Your task to perform on an android device: Search for seafood restaurants on Google Maps Image 0: 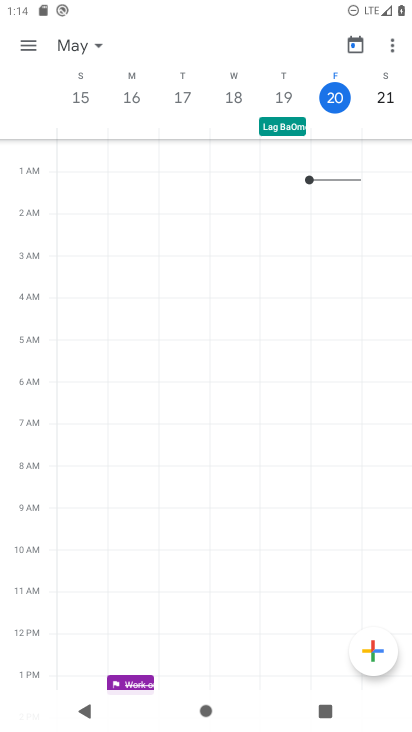
Step 0: press home button
Your task to perform on an android device: Search for seafood restaurants on Google Maps Image 1: 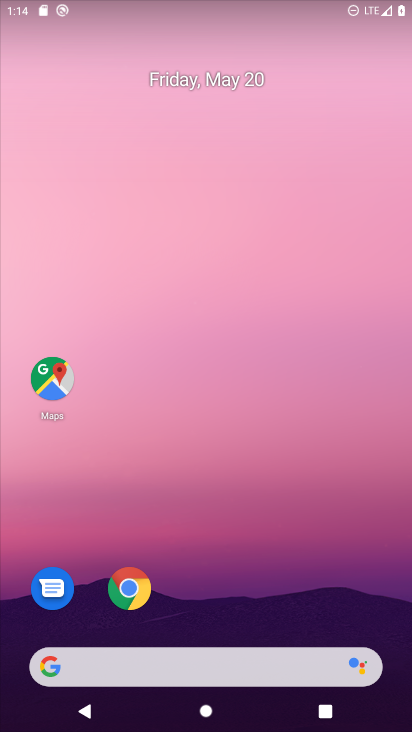
Step 1: click (53, 377)
Your task to perform on an android device: Search for seafood restaurants on Google Maps Image 2: 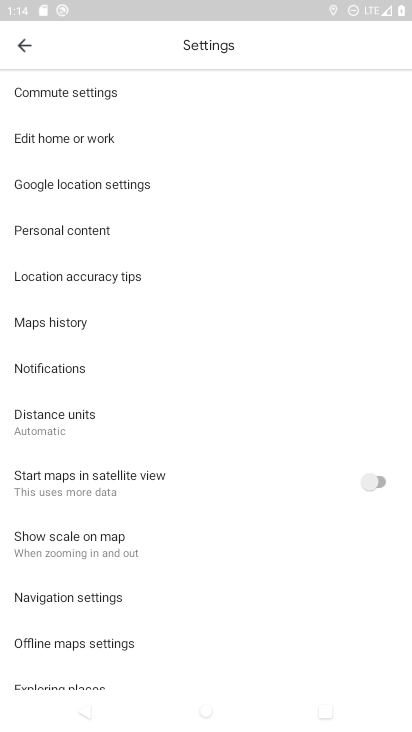
Step 2: press back button
Your task to perform on an android device: Search for seafood restaurants on Google Maps Image 3: 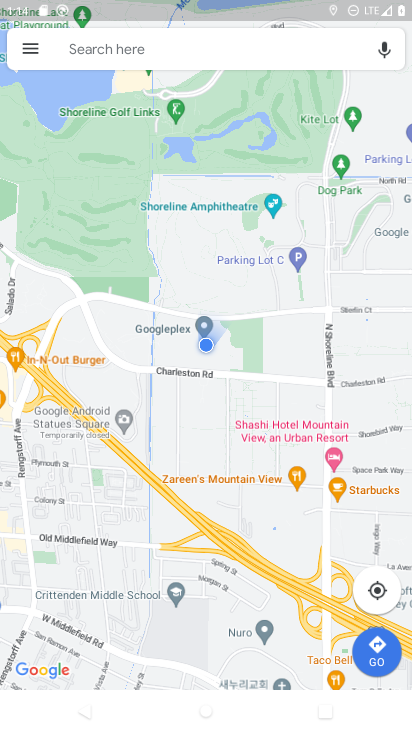
Step 3: click (123, 52)
Your task to perform on an android device: Search for seafood restaurants on Google Maps Image 4: 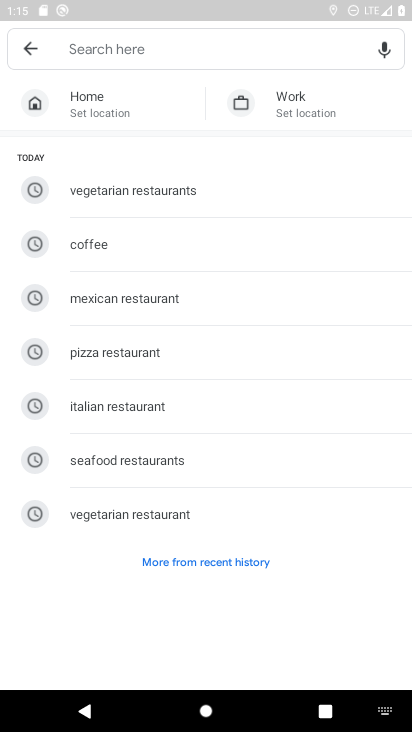
Step 4: type "seafood restaurants"
Your task to perform on an android device: Search for seafood restaurants on Google Maps Image 5: 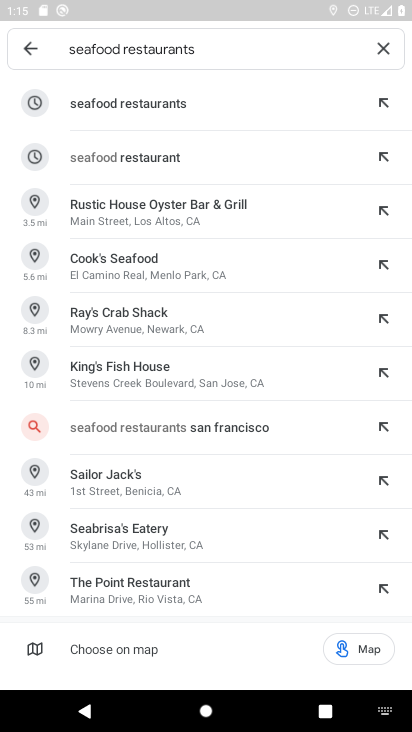
Step 5: click (160, 109)
Your task to perform on an android device: Search for seafood restaurants on Google Maps Image 6: 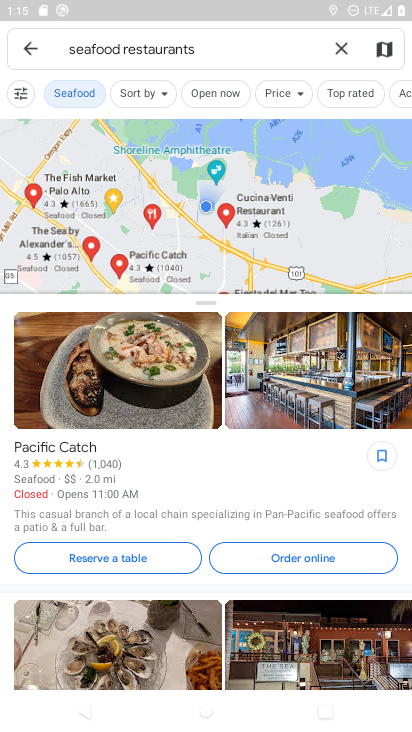
Step 6: task complete